Your task to perform on an android device: toggle wifi Image 0: 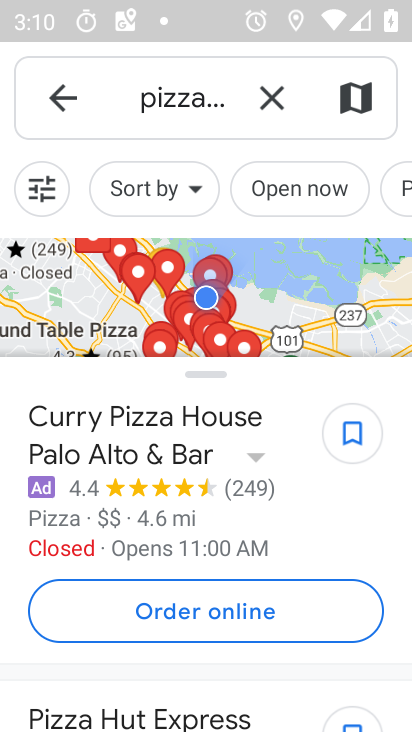
Step 0: press home button
Your task to perform on an android device: toggle wifi Image 1: 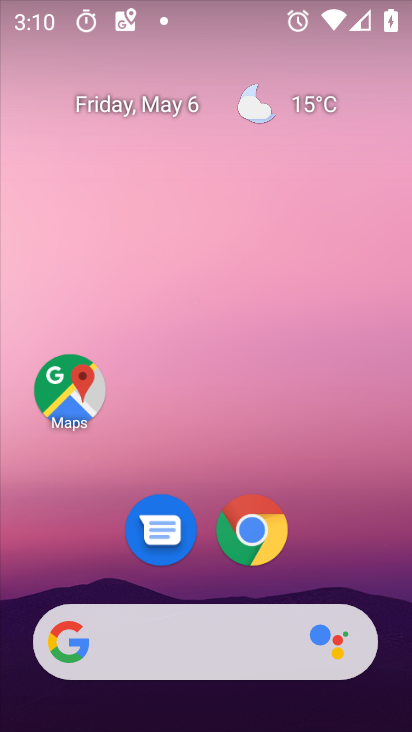
Step 1: drag from (351, 382) to (330, 2)
Your task to perform on an android device: toggle wifi Image 2: 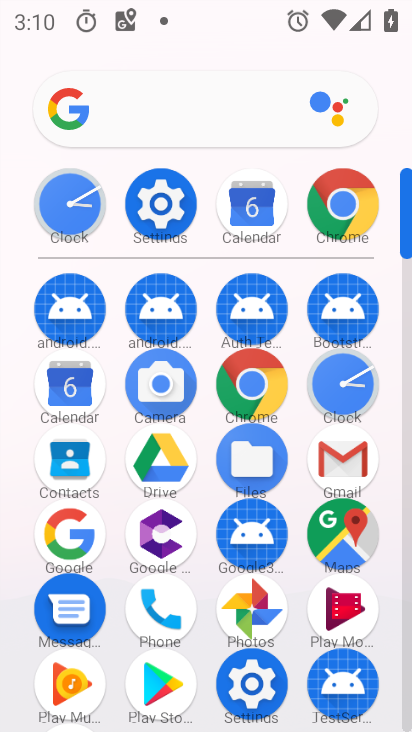
Step 2: click (144, 200)
Your task to perform on an android device: toggle wifi Image 3: 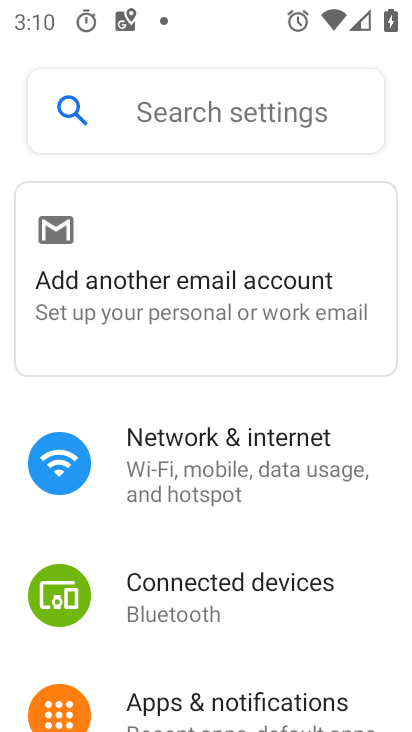
Step 3: click (227, 496)
Your task to perform on an android device: toggle wifi Image 4: 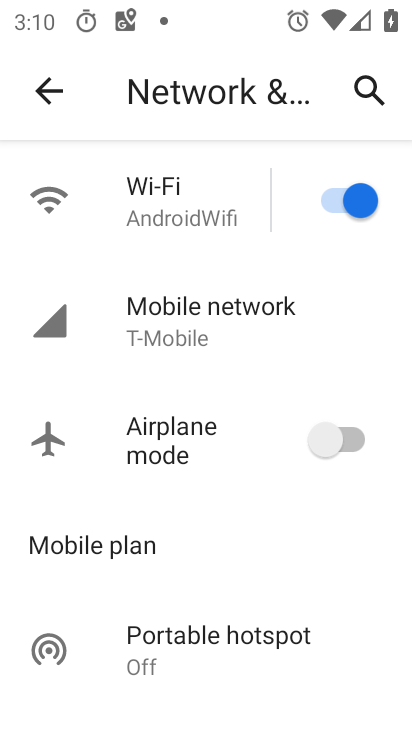
Step 4: click (337, 208)
Your task to perform on an android device: toggle wifi Image 5: 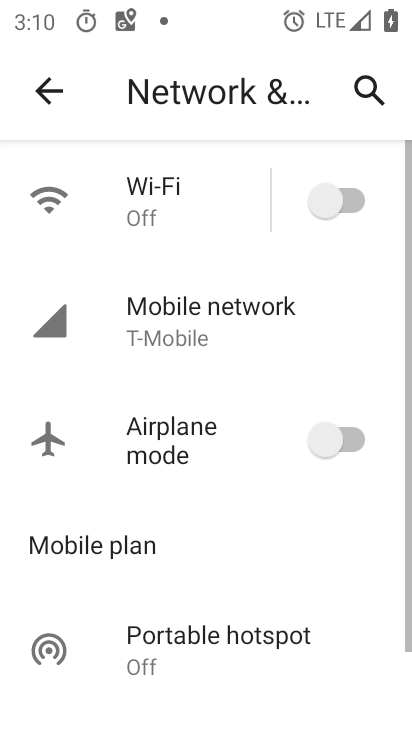
Step 5: task complete